Your task to perform on an android device: set the stopwatch Image 0: 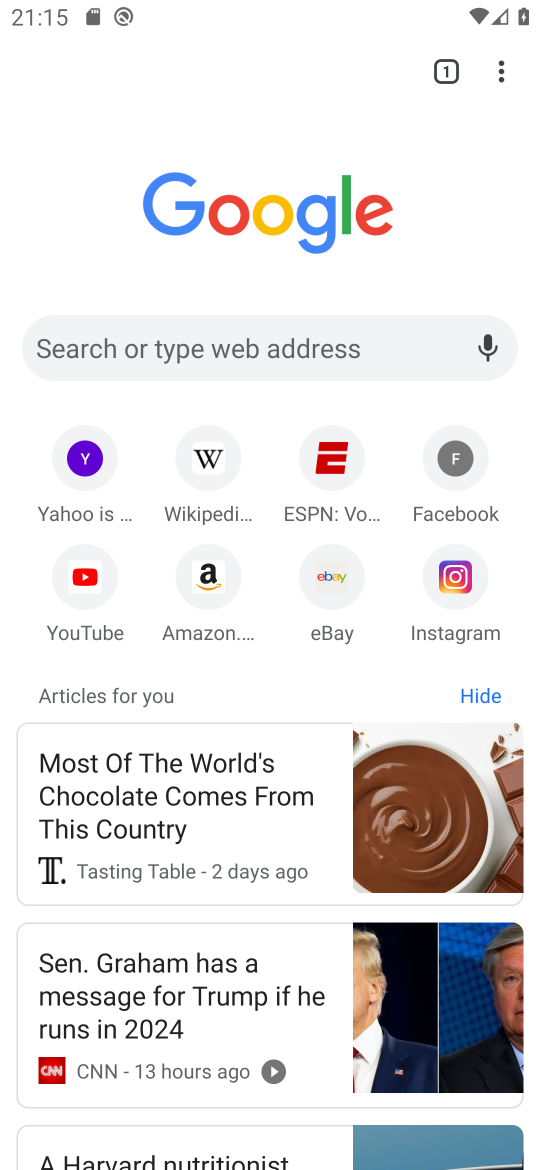
Step 0: press home button
Your task to perform on an android device: set the stopwatch Image 1: 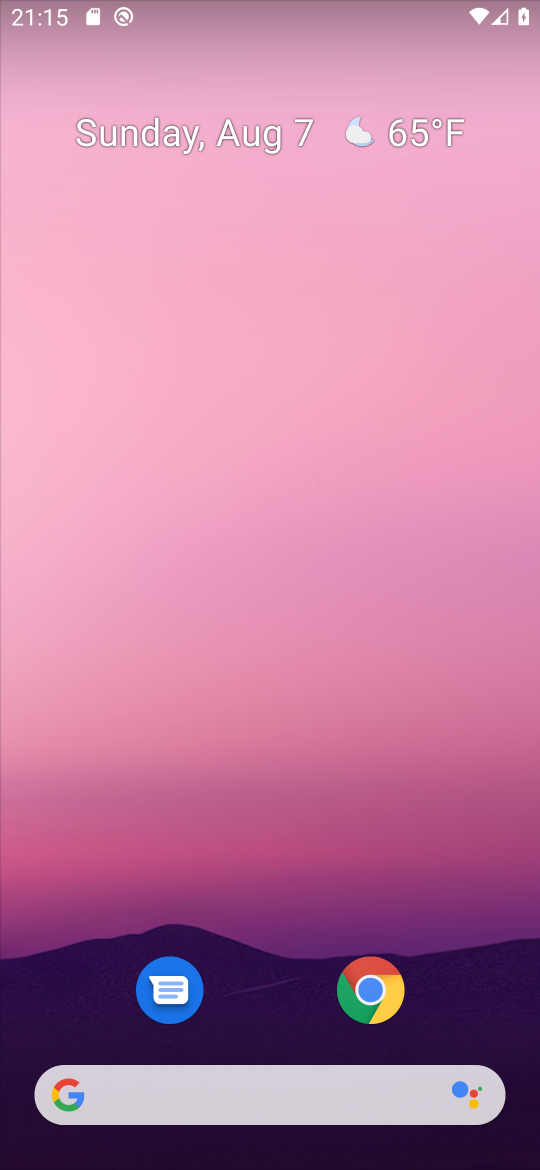
Step 1: drag from (261, 942) to (299, 8)
Your task to perform on an android device: set the stopwatch Image 2: 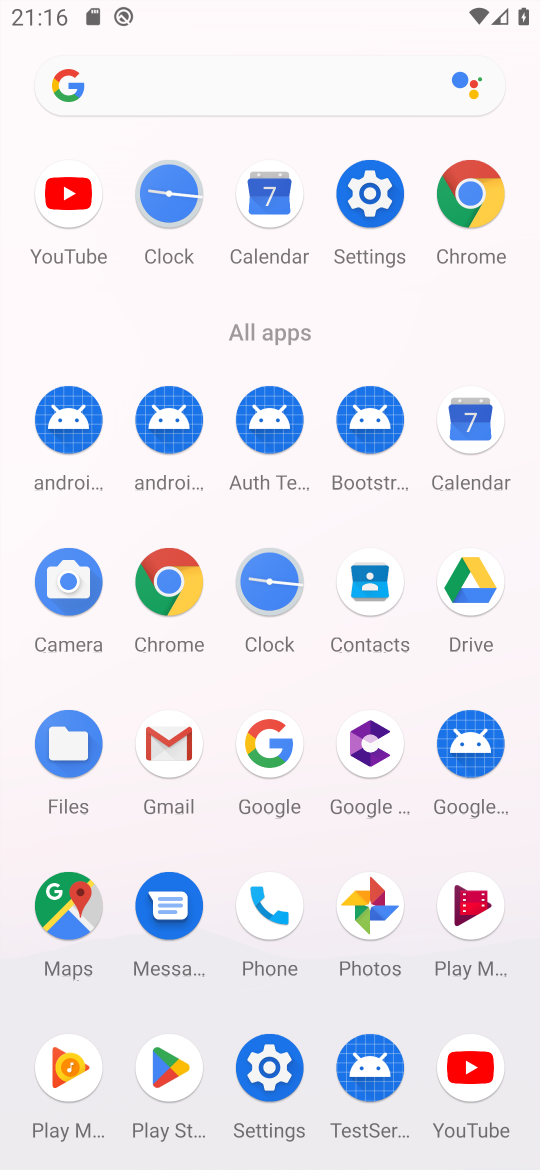
Step 2: click (176, 181)
Your task to perform on an android device: set the stopwatch Image 3: 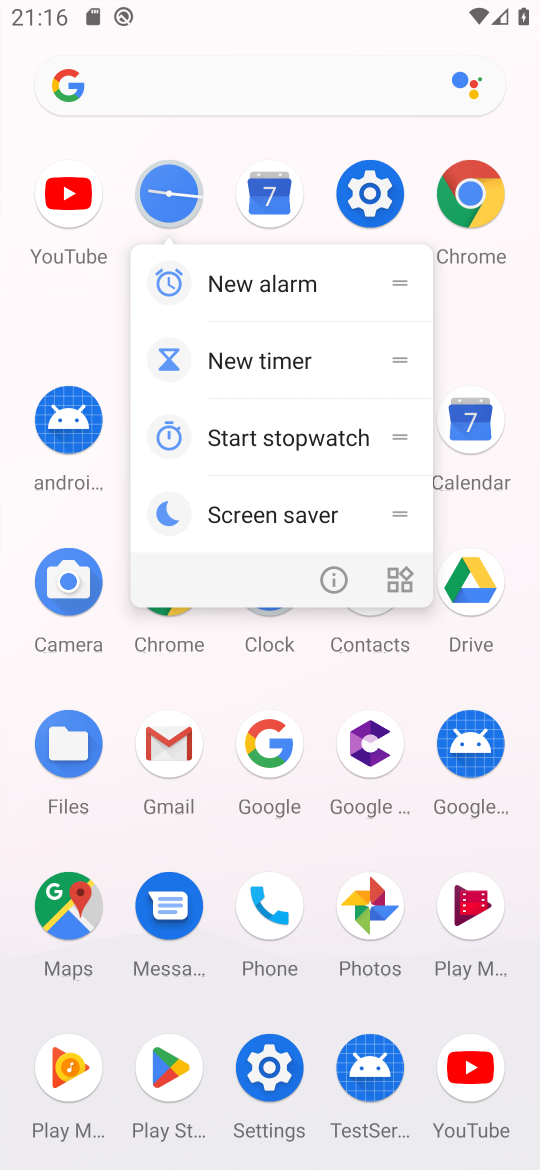
Step 3: click (176, 188)
Your task to perform on an android device: set the stopwatch Image 4: 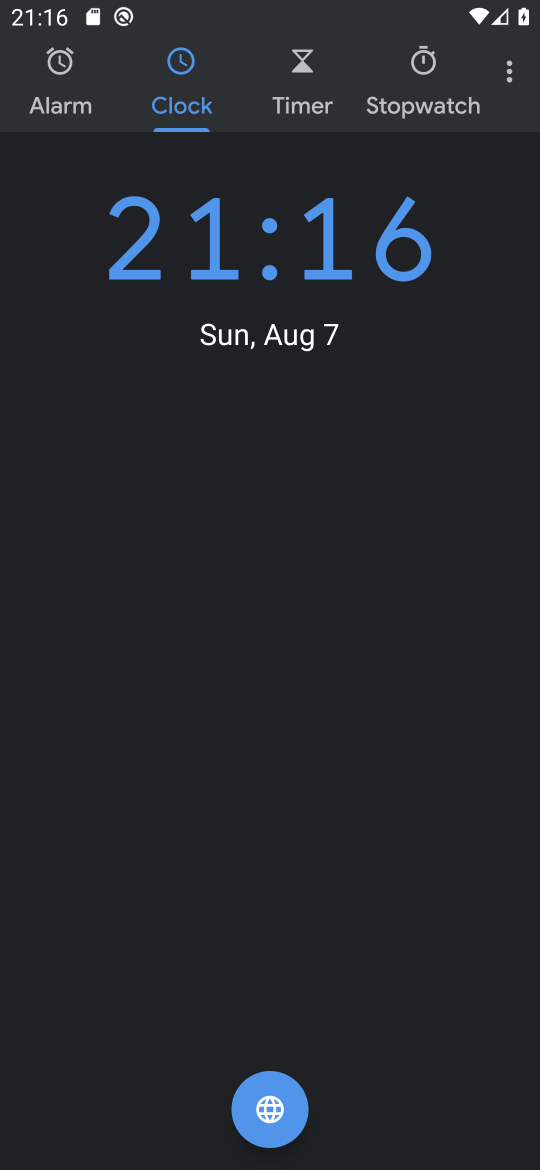
Step 4: click (430, 79)
Your task to perform on an android device: set the stopwatch Image 5: 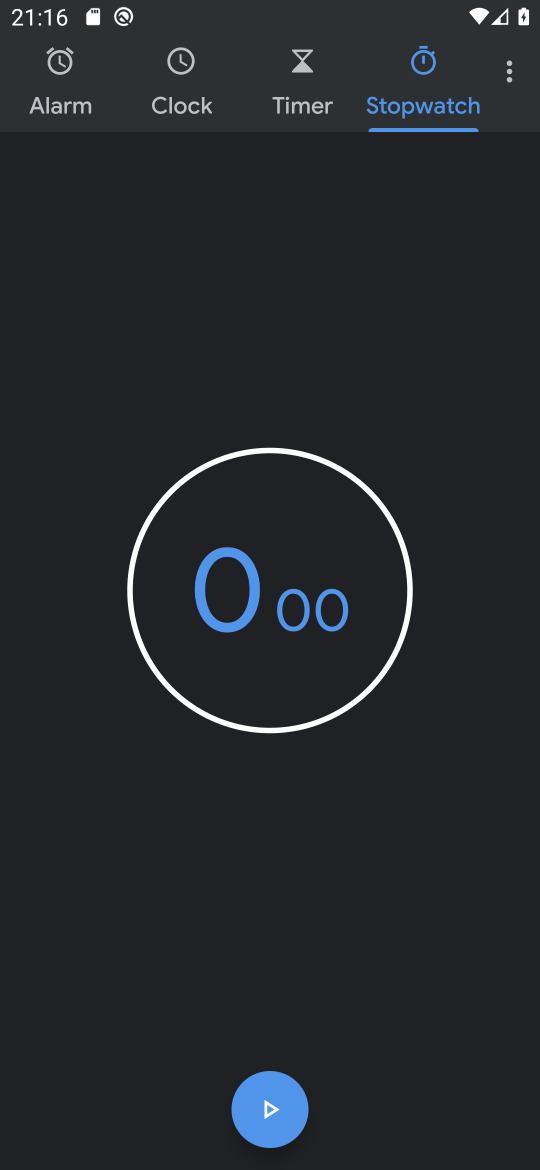
Step 5: task complete